Your task to perform on an android device: turn on showing notifications on the lock screen Image 0: 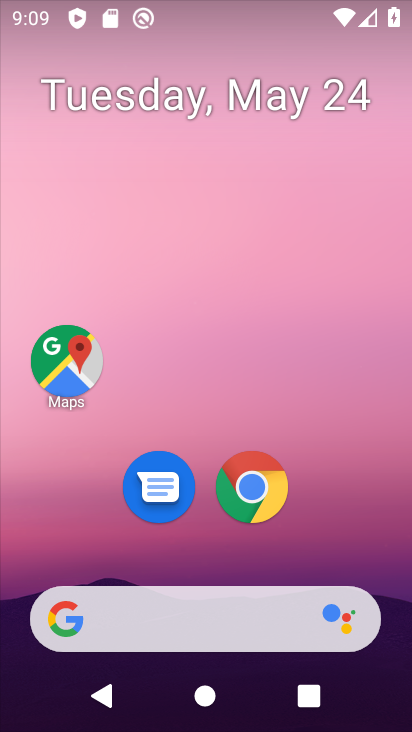
Step 0: drag from (345, 544) to (388, 1)
Your task to perform on an android device: turn on showing notifications on the lock screen Image 1: 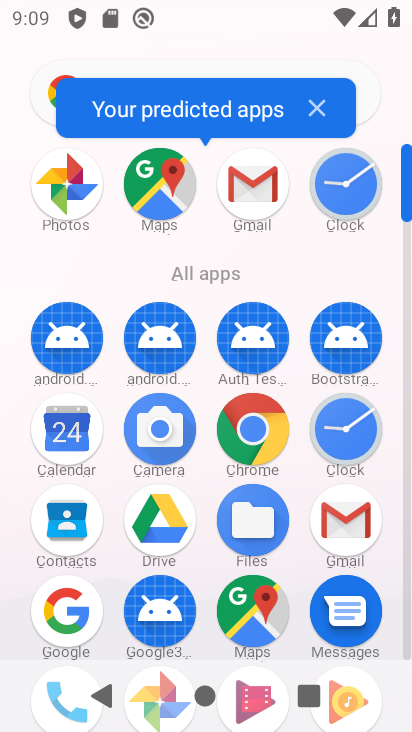
Step 1: click (405, 469)
Your task to perform on an android device: turn on showing notifications on the lock screen Image 2: 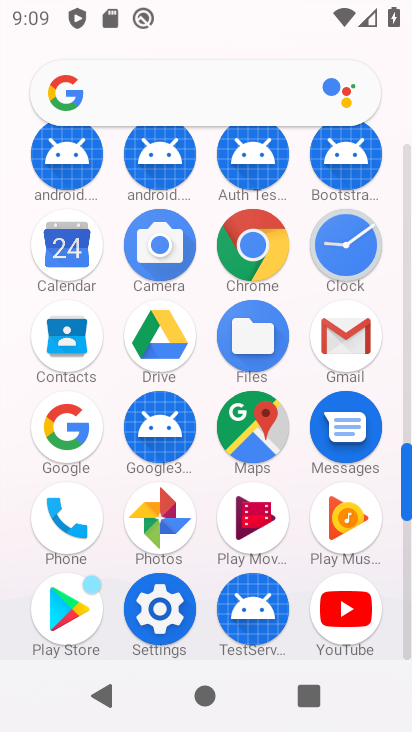
Step 2: click (163, 611)
Your task to perform on an android device: turn on showing notifications on the lock screen Image 3: 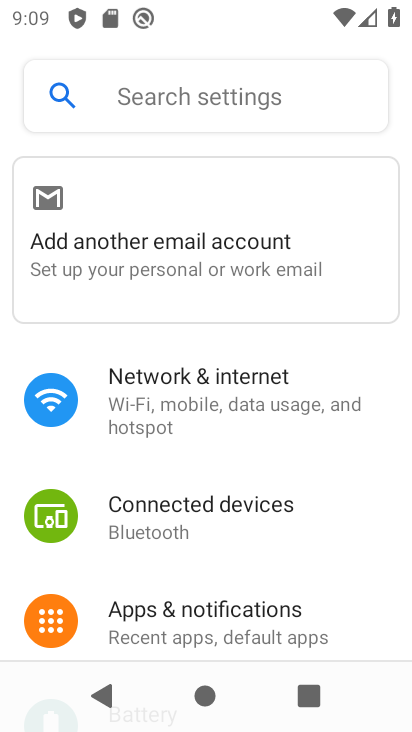
Step 3: click (204, 612)
Your task to perform on an android device: turn on showing notifications on the lock screen Image 4: 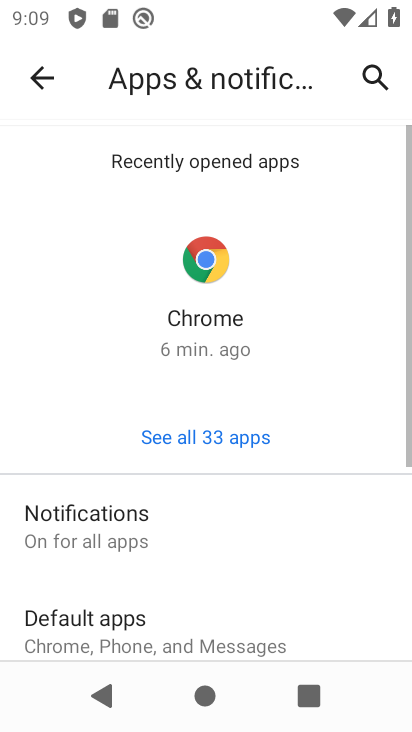
Step 4: click (74, 541)
Your task to perform on an android device: turn on showing notifications on the lock screen Image 5: 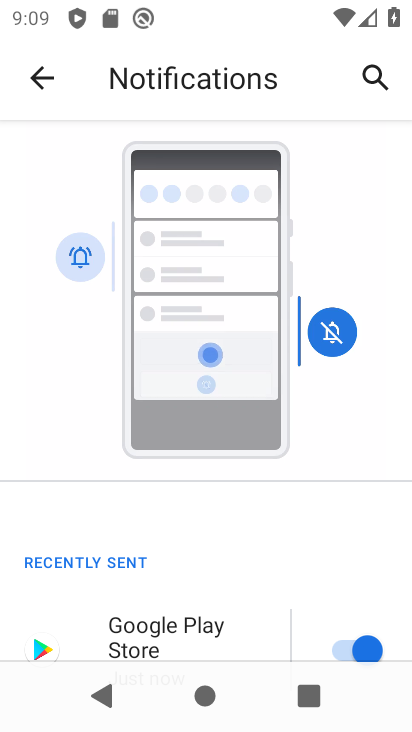
Step 5: drag from (155, 614) to (142, 147)
Your task to perform on an android device: turn on showing notifications on the lock screen Image 6: 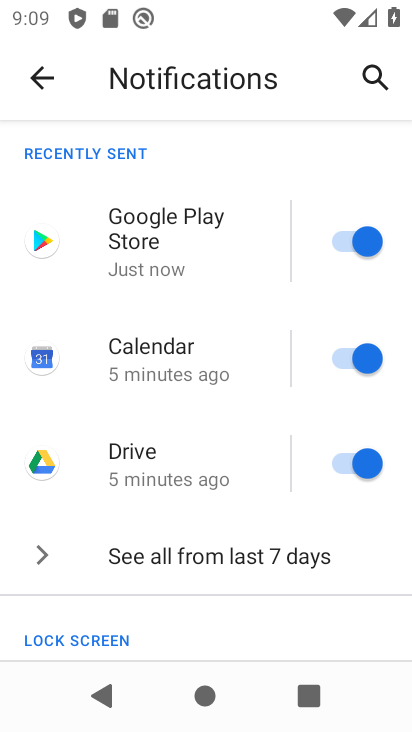
Step 6: drag from (163, 554) to (135, 260)
Your task to perform on an android device: turn on showing notifications on the lock screen Image 7: 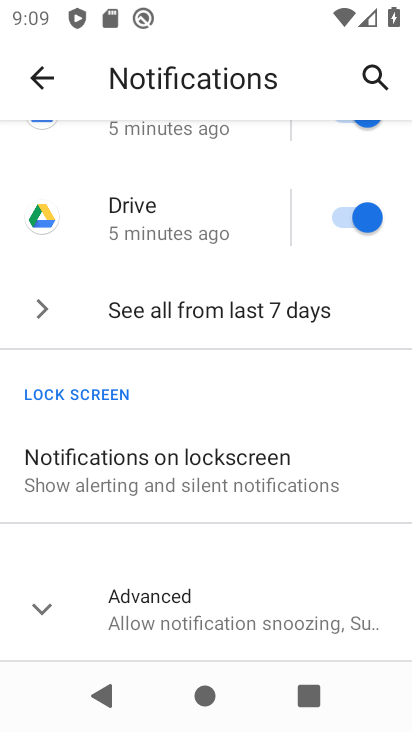
Step 7: click (116, 479)
Your task to perform on an android device: turn on showing notifications on the lock screen Image 8: 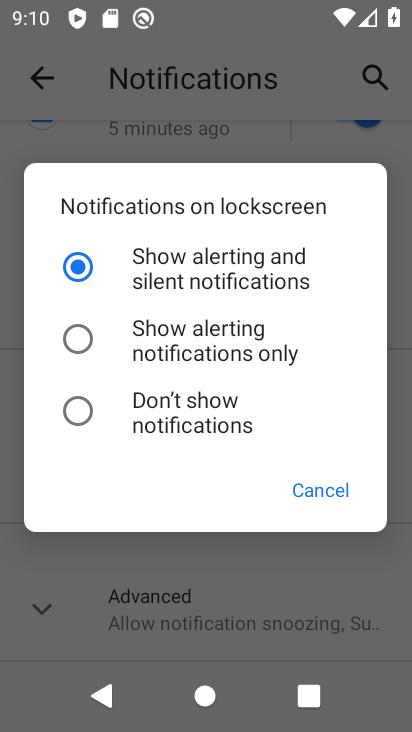
Step 8: task complete